Your task to perform on an android device: find photos in the google photos app Image 0: 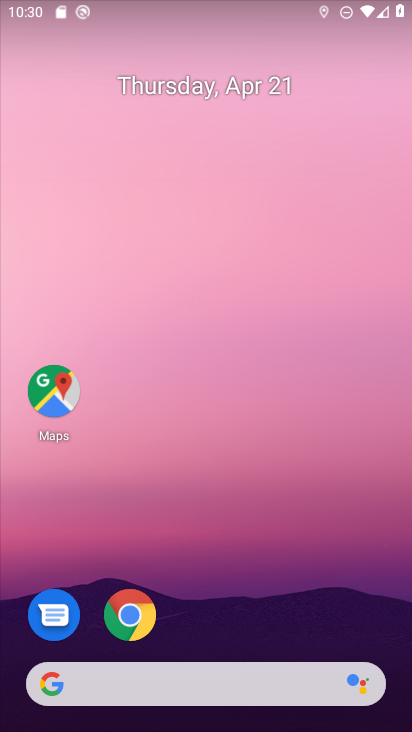
Step 0: drag from (196, 678) to (138, 84)
Your task to perform on an android device: find photos in the google photos app Image 1: 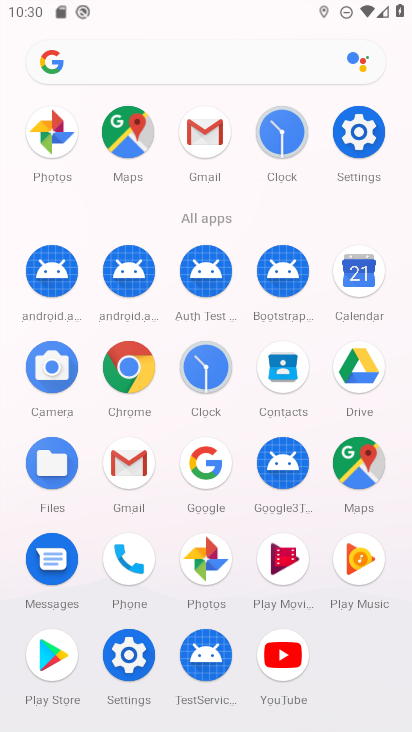
Step 1: click (206, 553)
Your task to perform on an android device: find photos in the google photos app Image 2: 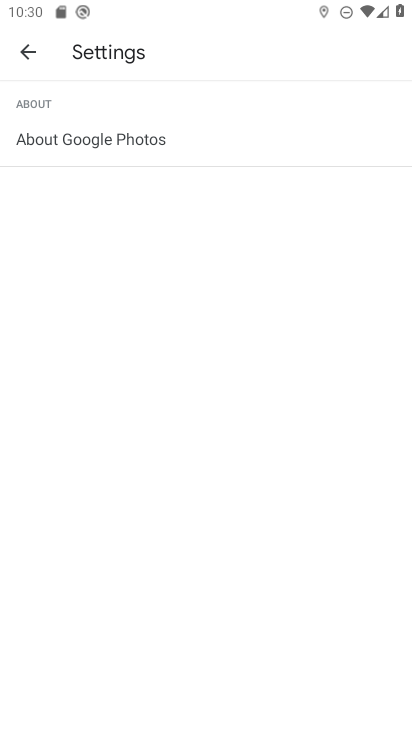
Step 2: click (24, 47)
Your task to perform on an android device: find photos in the google photos app Image 3: 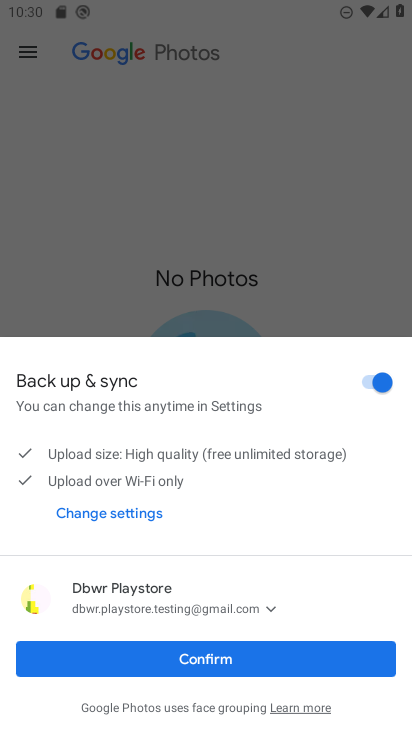
Step 3: click (202, 659)
Your task to perform on an android device: find photos in the google photos app Image 4: 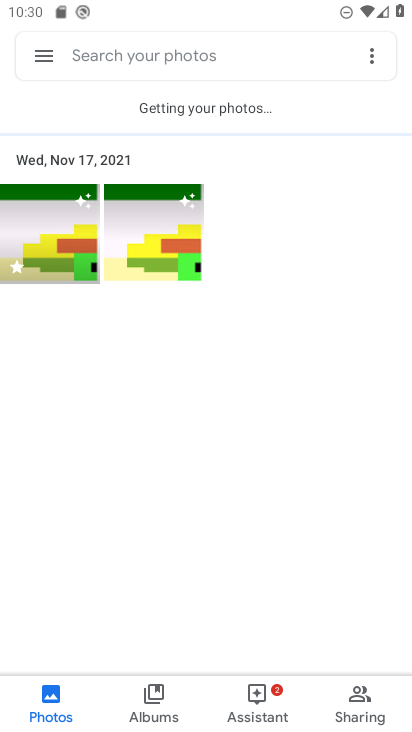
Step 4: click (59, 227)
Your task to perform on an android device: find photos in the google photos app Image 5: 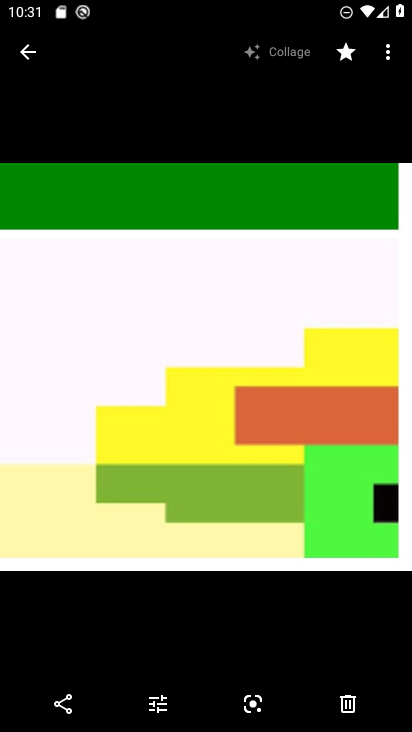
Step 5: task complete